Your task to perform on an android device: turn off smart reply in the gmail app Image 0: 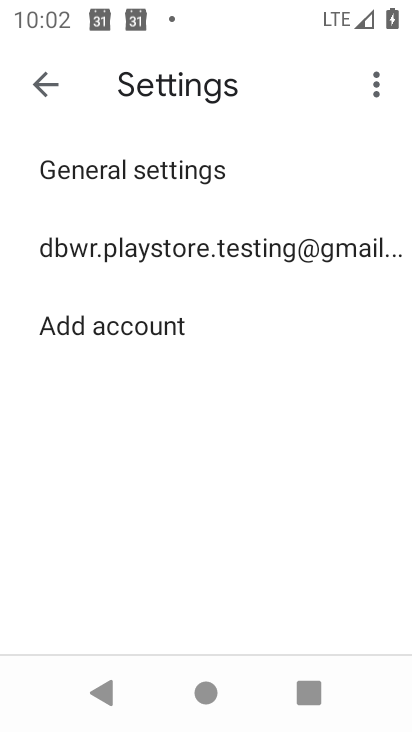
Step 0: click (46, 98)
Your task to perform on an android device: turn off smart reply in the gmail app Image 1: 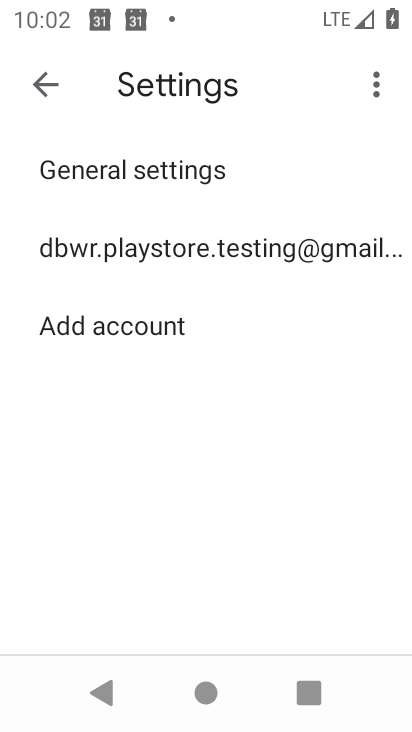
Step 1: click (139, 256)
Your task to perform on an android device: turn off smart reply in the gmail app Image 2: 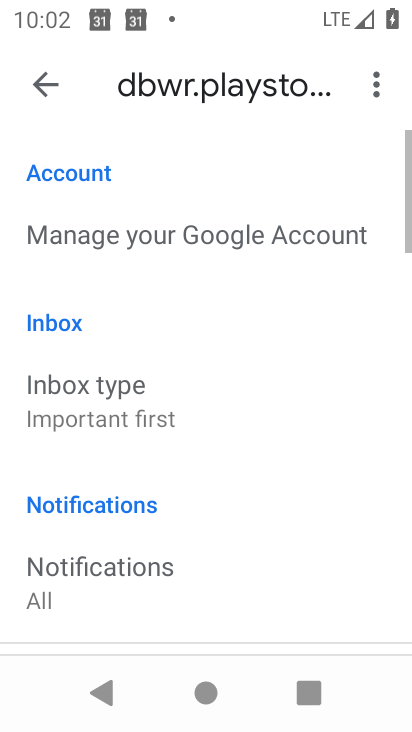
Step 2: drag from (257, 435) to (243, 88)
Your task to perform on an android device: turn off smart reply in the gmail app Image 3: 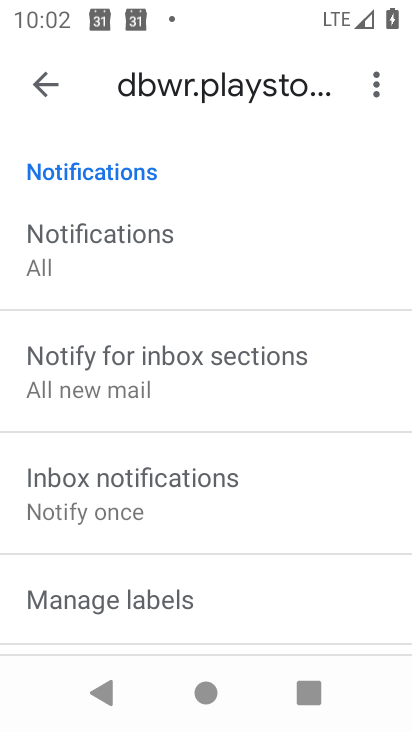
Step 3: drag from (271, 497) to (262, 125)
Your task to perform on an android device: turn off smart reply in the gmail app Image 4: 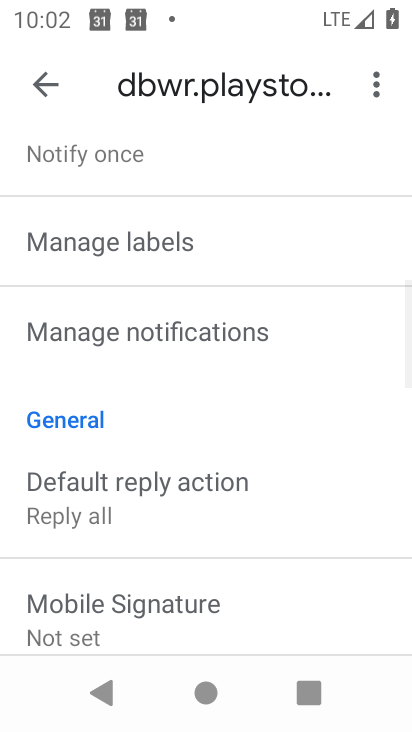
Step 4: drag from (219, 528) to (238, 78)
Your task to perform on an android device: turn off smart reply in the gmail app Image 5: 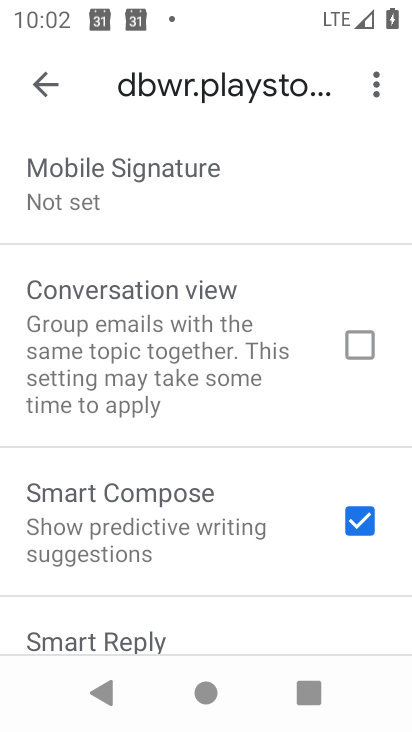
Step 5: drag from (253, 543) to (235, 210)
Your task to perform on an android device: turn off smart reply in the gmail app Image 6: 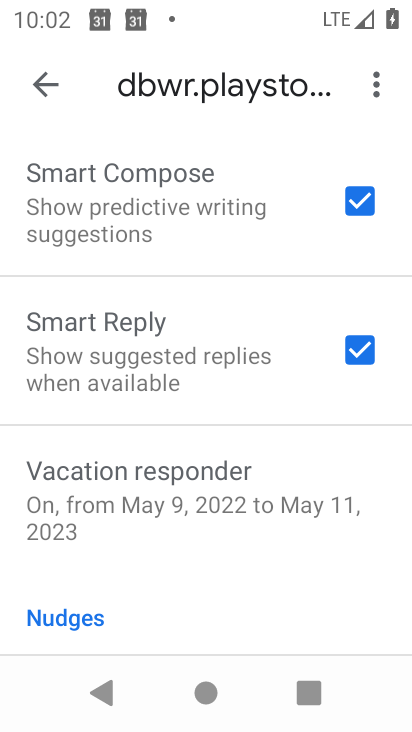
Step 6: click (370, 341)
Your task to perform on an android device: turn off smart reply in the gmail app Image 7: 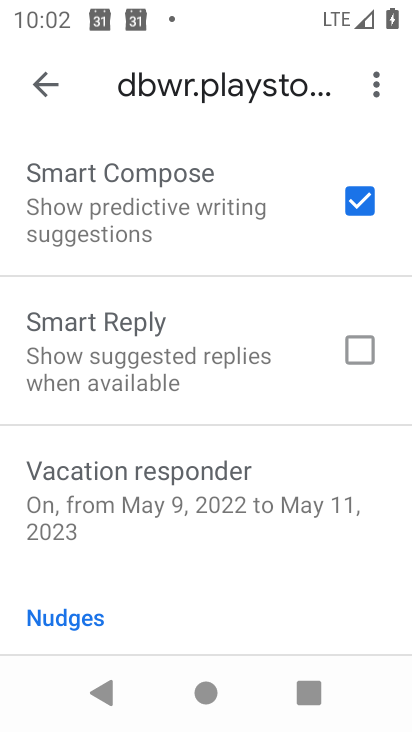
Step 7: task complete